Your task to perform on an android device: install app "HBO Max: Stream TV & Movies" Image 0: 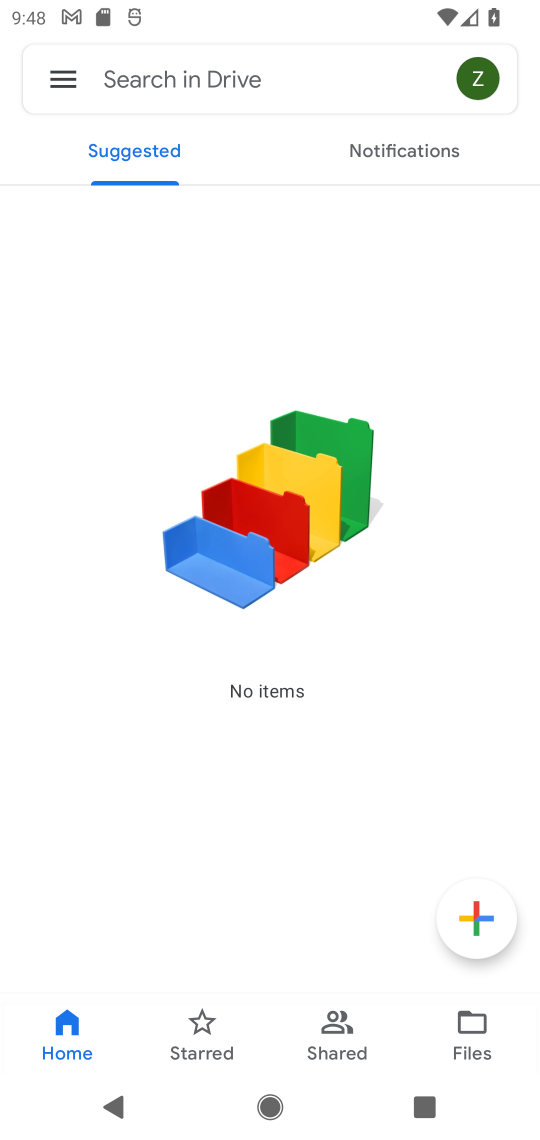
Step 0: press home button
Your task to perform on an android device: install app "HBO Max: Stream TV & Movies" Image 1: 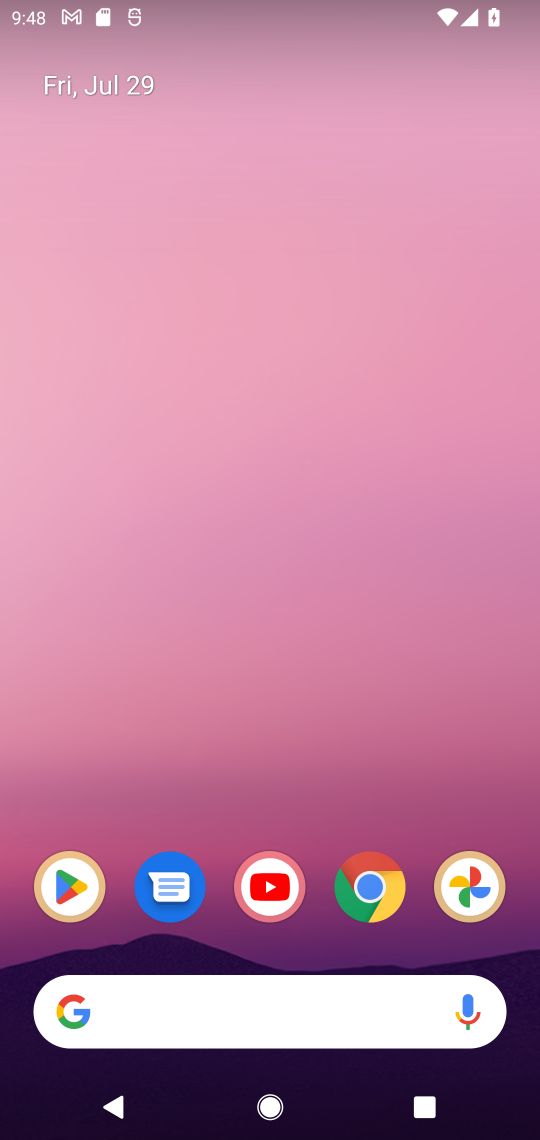
Step 1: click (74, 892)
Your task to perform on an android device: install app "HBO Max: Stream TV & Movies" Image 2: 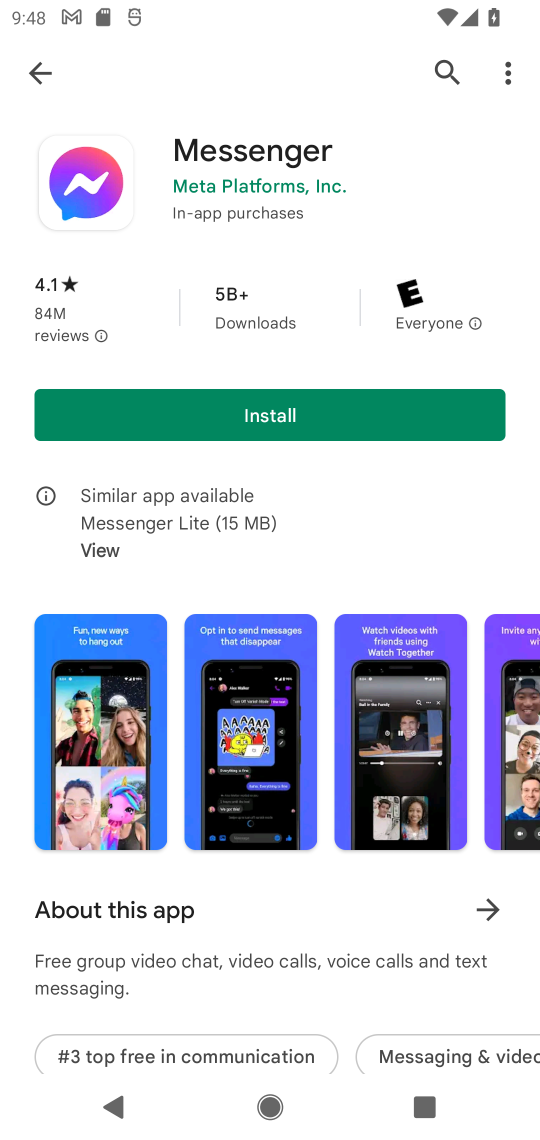
Step 2: click (449, 59)
Your task to perform on an android device: install app "HBO Max: Stream TV & Movies" Image 3: 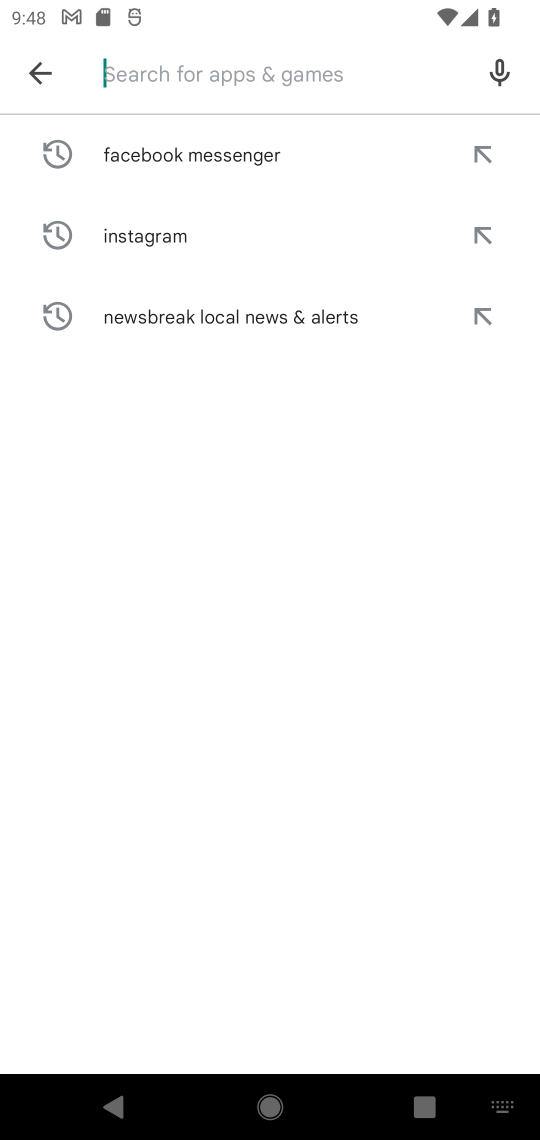
Step 3: type "HBO Max: Stream TV & Movies"
Your task to perform on an android device: install app "HBO Max: Stream TV & Movies" Image 4: 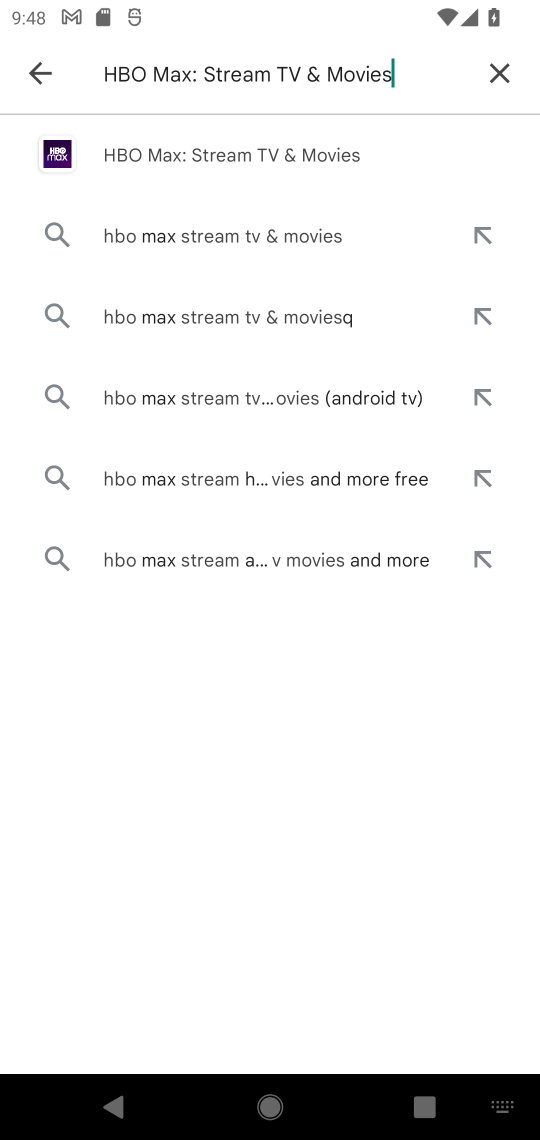
Step 4: click (385, 155)
Your task to perform on an android device: install app "HBO Max: Stream TV & Movies" Image 5: 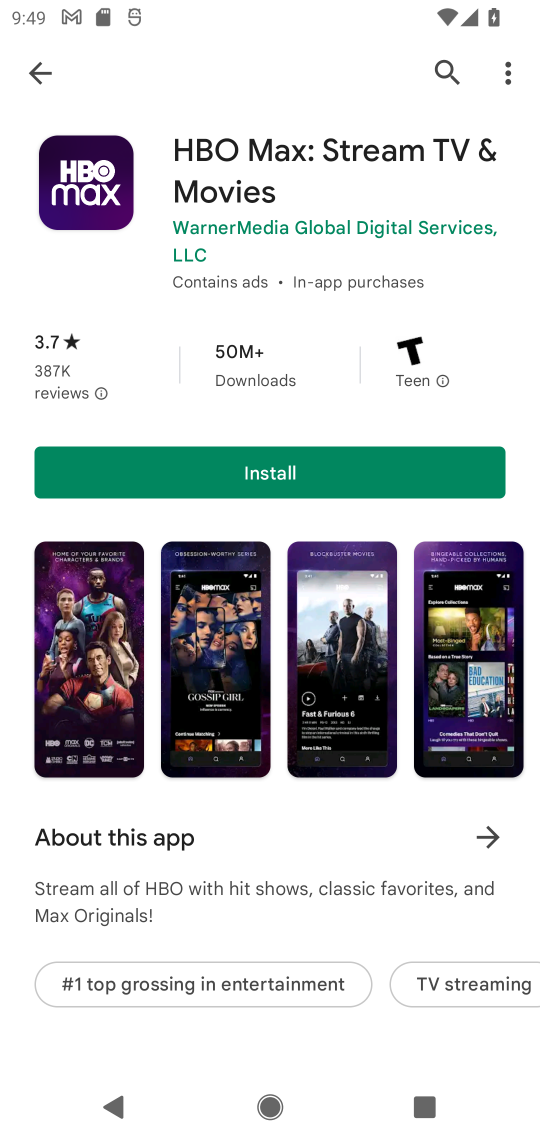
Step 5: click (303, 474)
Your task to perform on an android device: install app "HBO Max: Stream TV & Movies" Image 6: 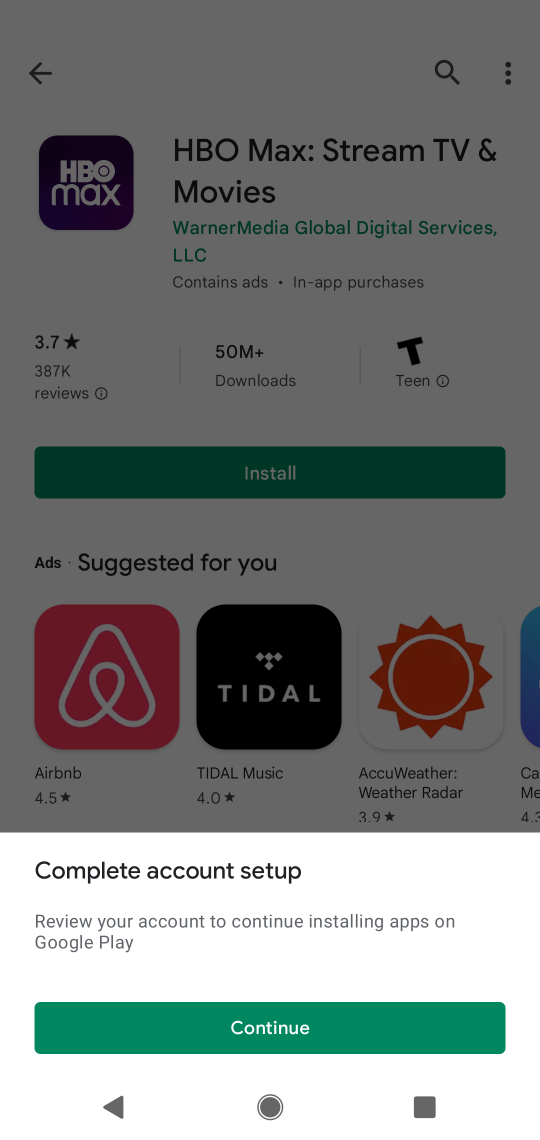
Step 6: click (258, 1017)
Your task to perform on an android device: install app "HBO Max: Stream TV & Movies" Image 7: 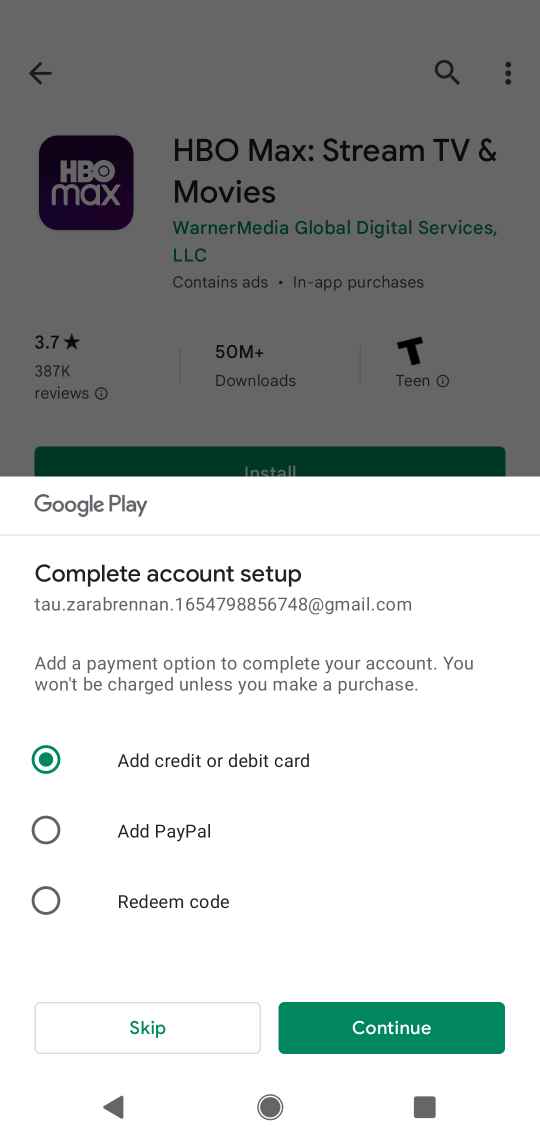
Step 7: click (94, 1022)
Your task to perform on an android device: install app "HBO Max: Stream TV & Movies" Image 8: 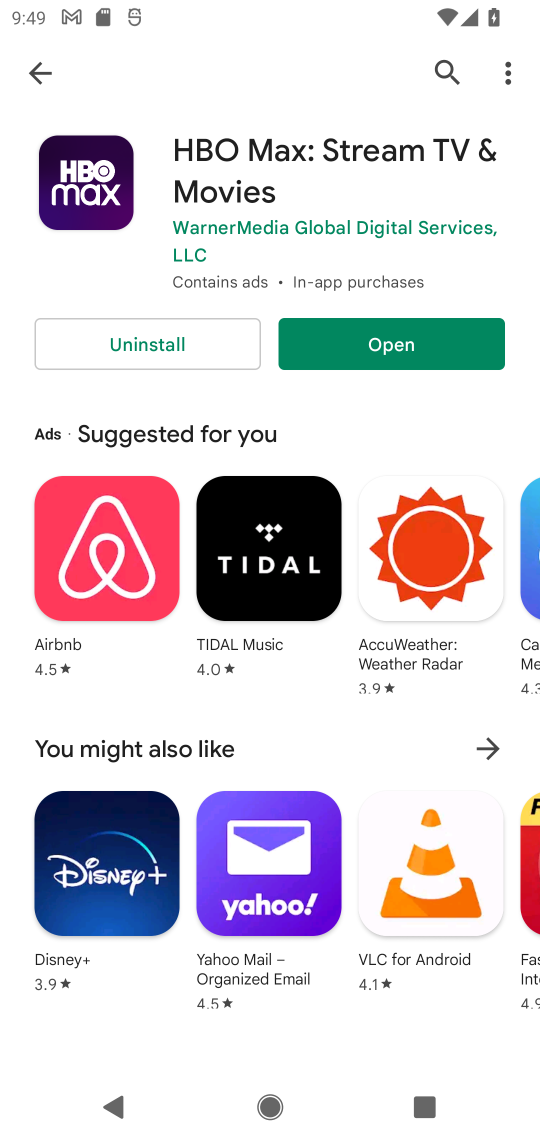
Step 8: task complete